Your task to perform on an android device: move an email to a new category in the gmail app Image 0: 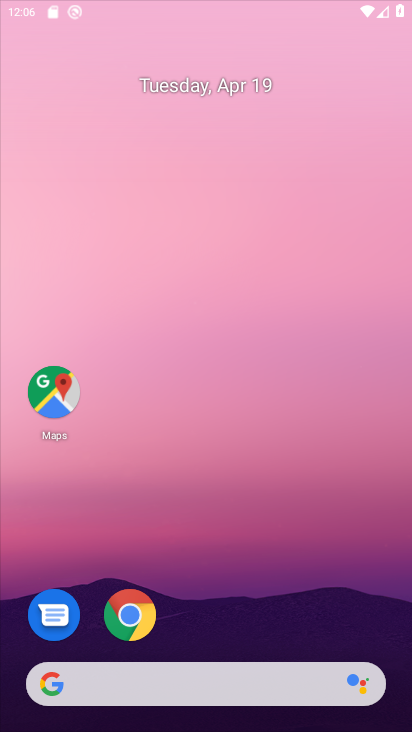
Step 0: click (132, 624)
Your task to perform on an android device: move an email to a new category in the gmail app Image 1: 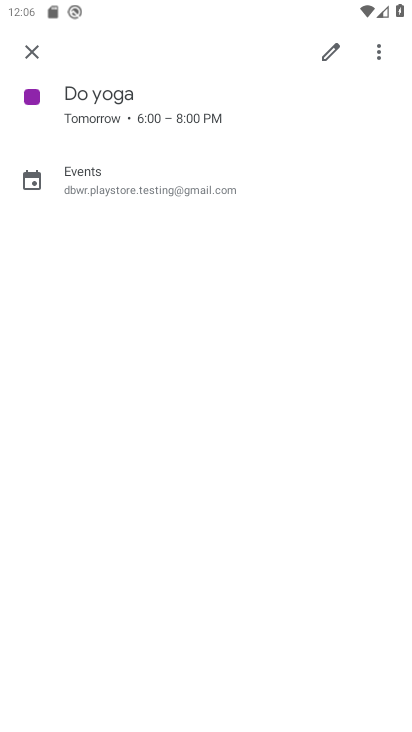
Step 1: press home button
Your task to perform on an android device: move an email to a new category in the gmail app Image 2: 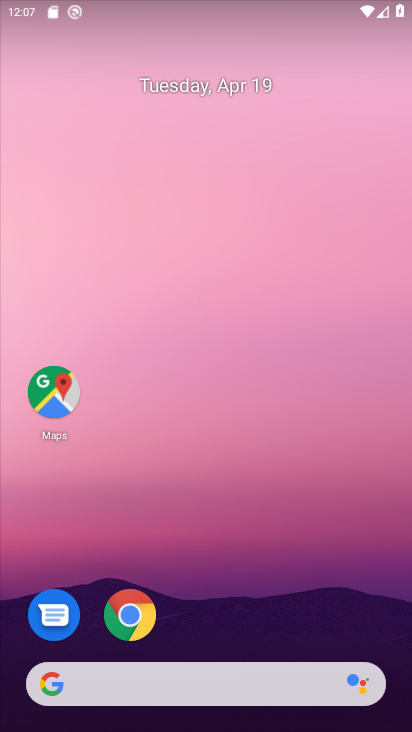
Step 2: drag from (184, 645) to (182, 309)
Your task to perform on an android device: move an email to a new category in the gmail app Image 3: 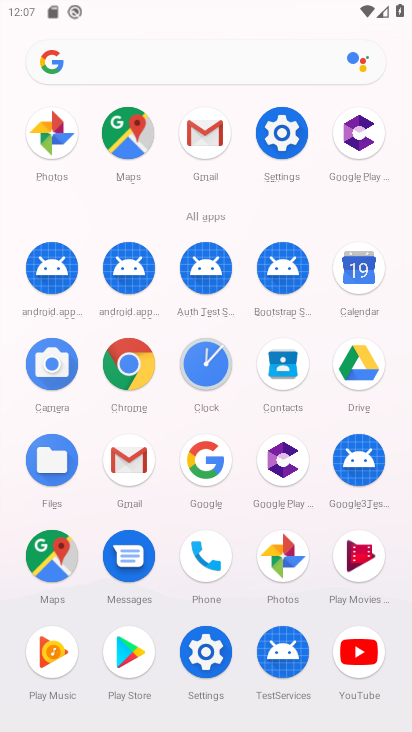
Step 3: click (206, 142)
Your task to perform on an android device: move an email to a new category in the gmail app Image 4: 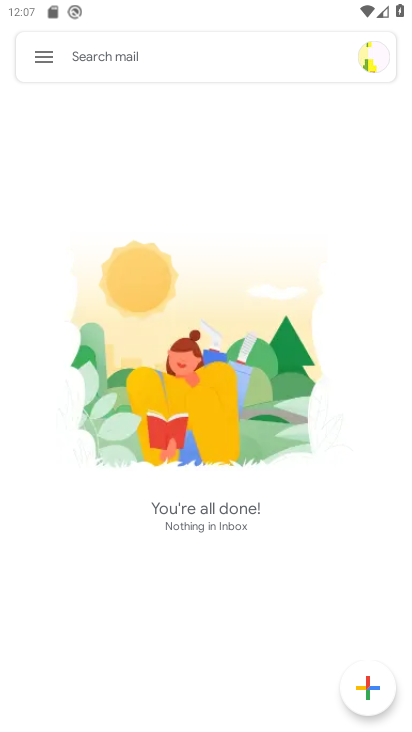
Step 4: task complete